Your task to perform on an android device: Go to network settings Image 0: 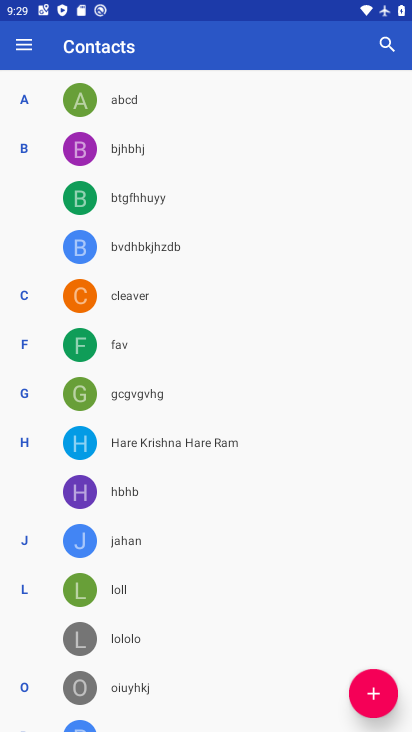
Step 0: press home button
Your task to perform on an android device: Go to network settings Image 1: 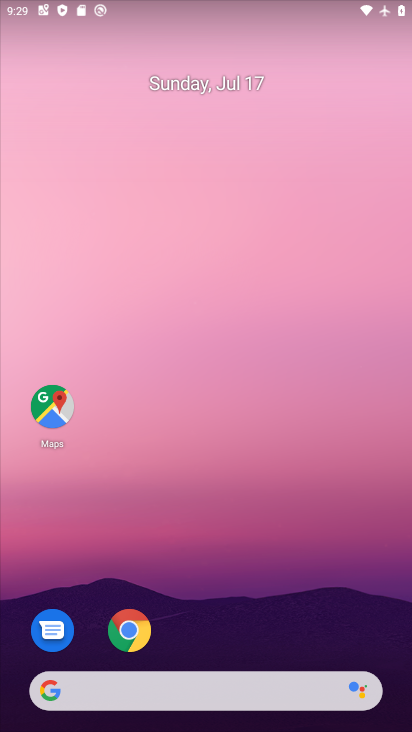
Step 1: drag from (268, 651) to (279, 94)
Your task to perform on an android device: Go to network settings Image 2: 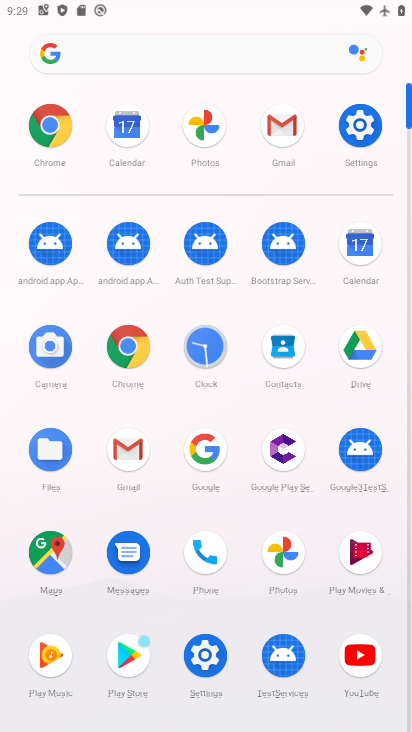
Step 2: click (364, 135)
Your task to perform on an android device: Go to network settings Image 3: 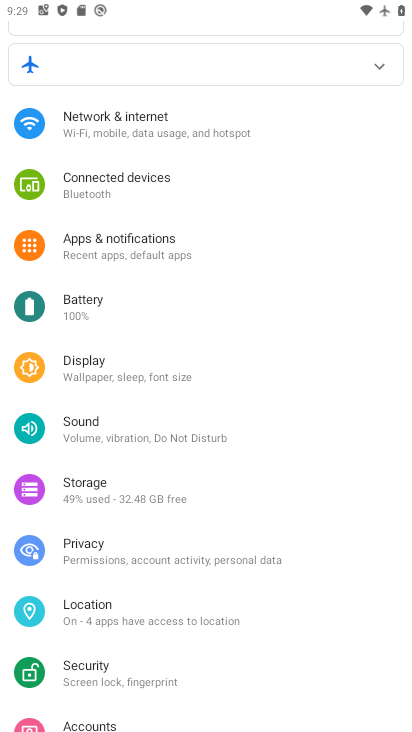
Step 3: click (199, 123)
Your task to perform on an android device: Go to network settings Image 4: 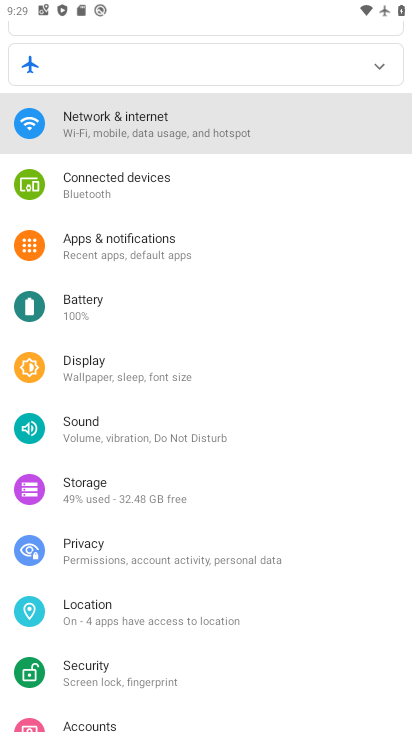
Step 4: task complete